Your task to perform on an android device: change the clock display to analog Image 0: 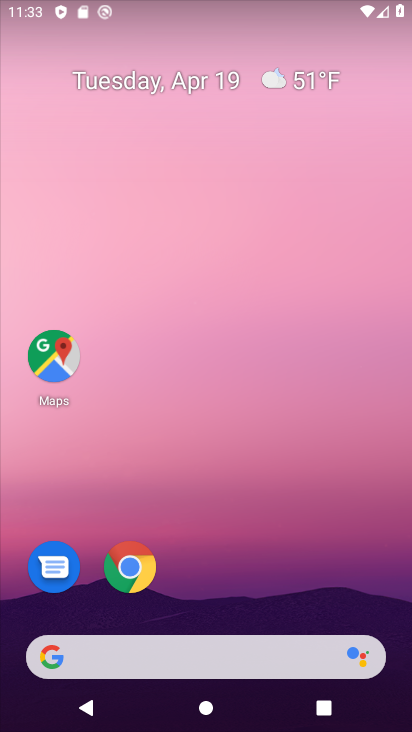
Step 0: drag from (204, 579) to (281, 100)
Your task to perform on an android device: change the clock display to analog Image 1: 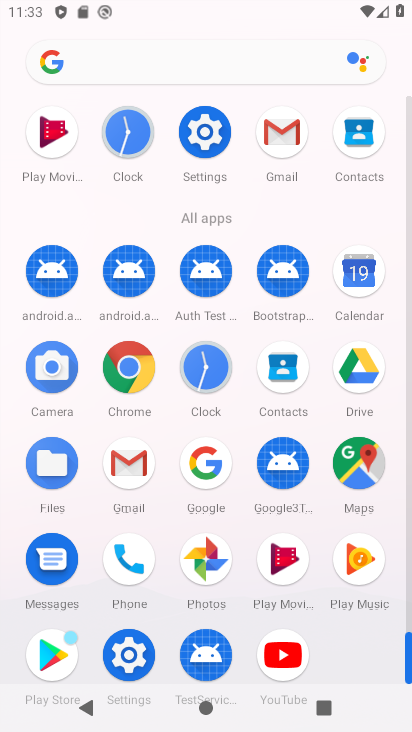
Step 1: click (208, 367)
Your task to perform on an android device: change the clock display to analog Image 2: 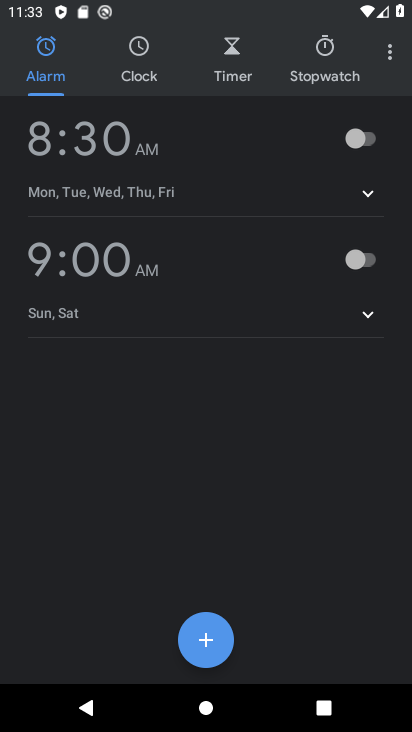
Step 2: click (392, 56)
Your task to perform on an android device: change the clock display to analog Image 3: 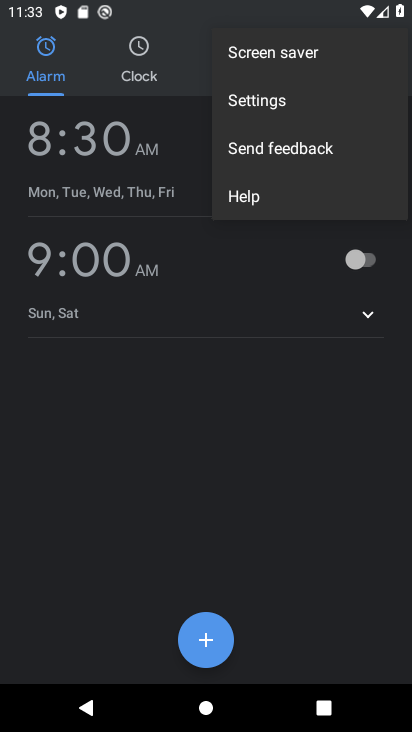
Step 3: click (272, 100)
Your task to perform on an android device: change the clock display to analog Image 4: 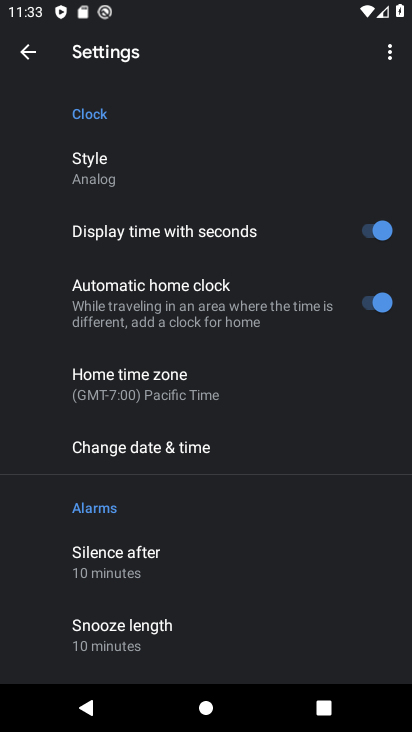
Step 4: task complete